Your task to perform on an android device: manage bookmarks in the chrome app Image 0: 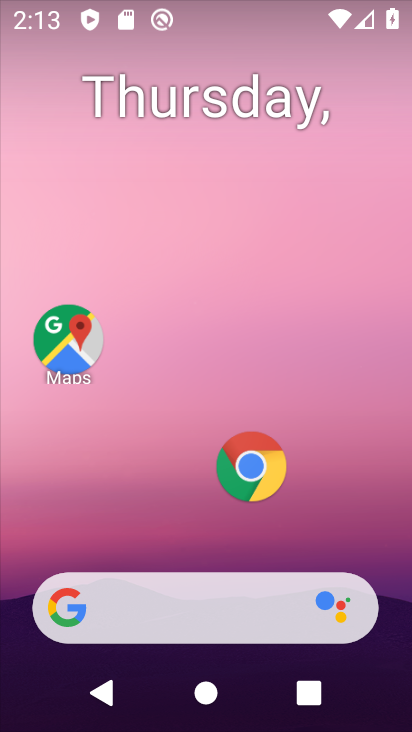
Step 0: click (249, 478)
Your task to perform on an android device: manage bookmarks in the chrome app Image 1: 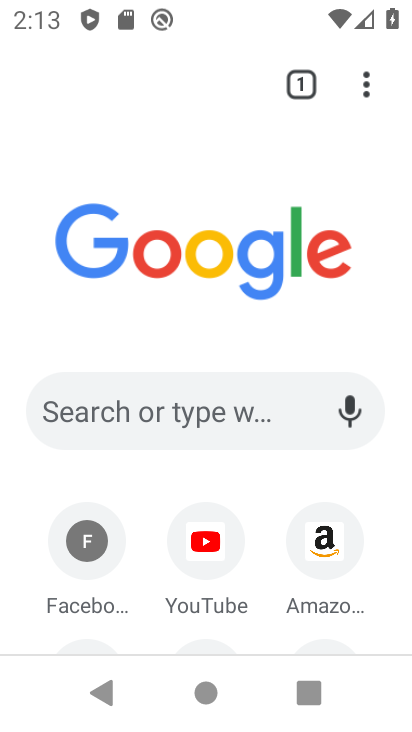
Step 1: task complete